Your task to perform on an android device: set default search engine in the chrome app Image 0: 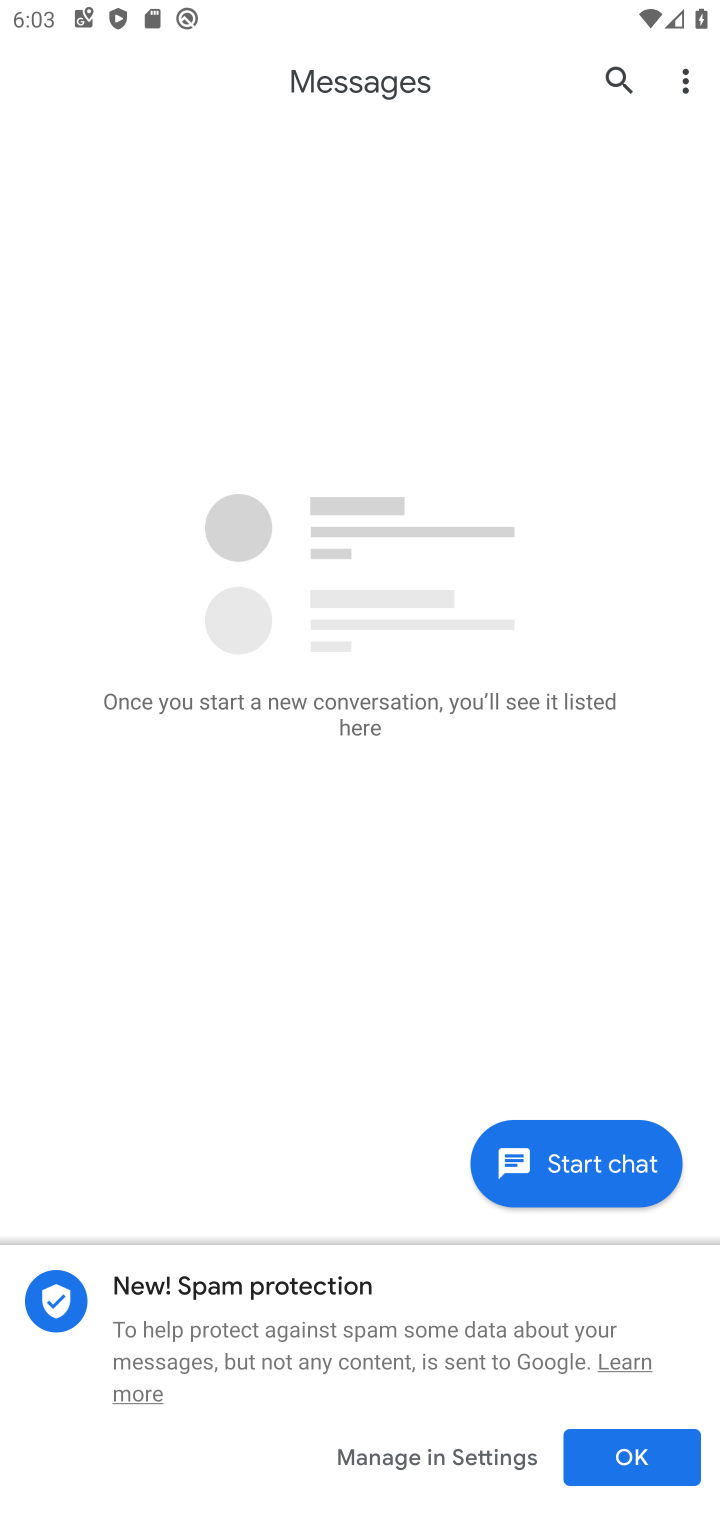
Step 0: press back button
Your task to perform on an android device: set default search engine in the chrome app Image 1: 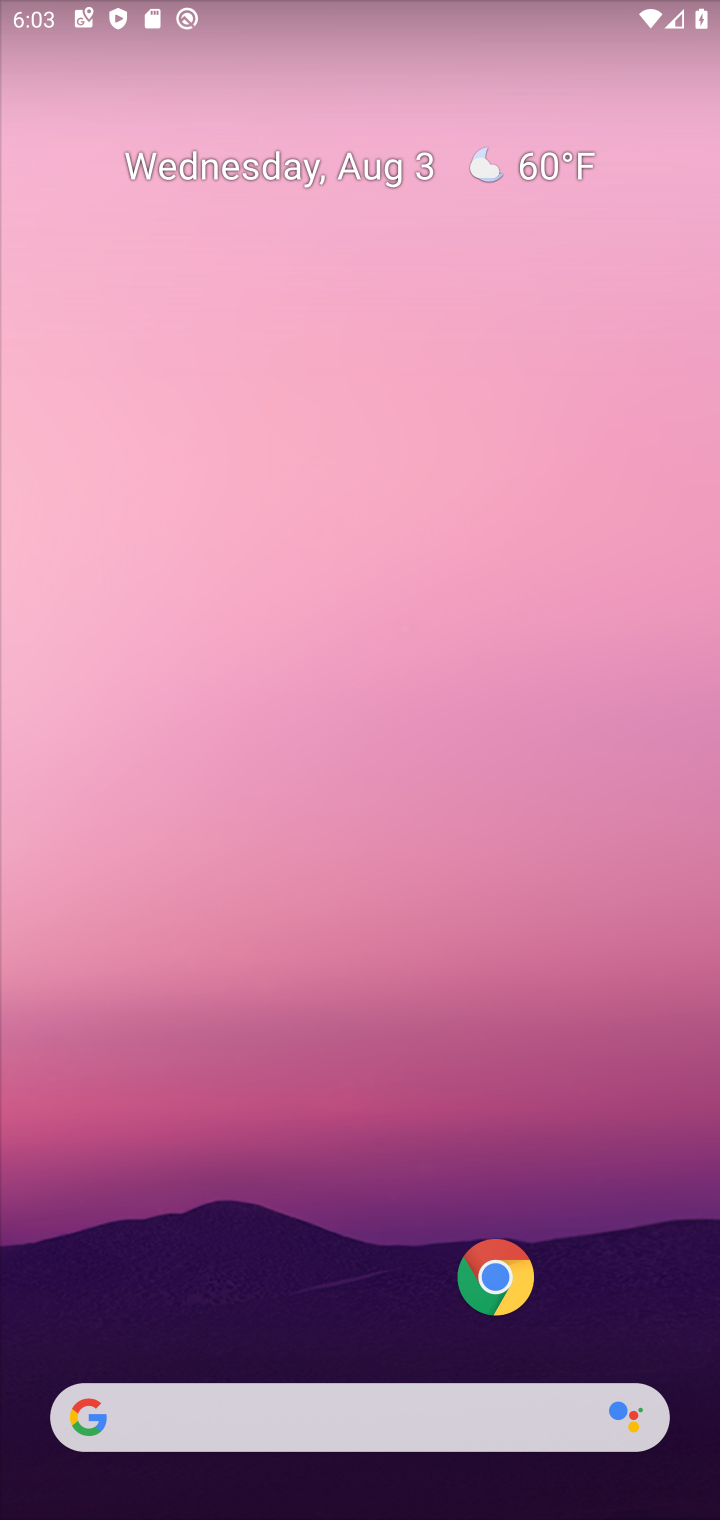
Step 1: click (505, 1279)
Your task to perform on an android device: set default search engine in the chrome app Image 2: 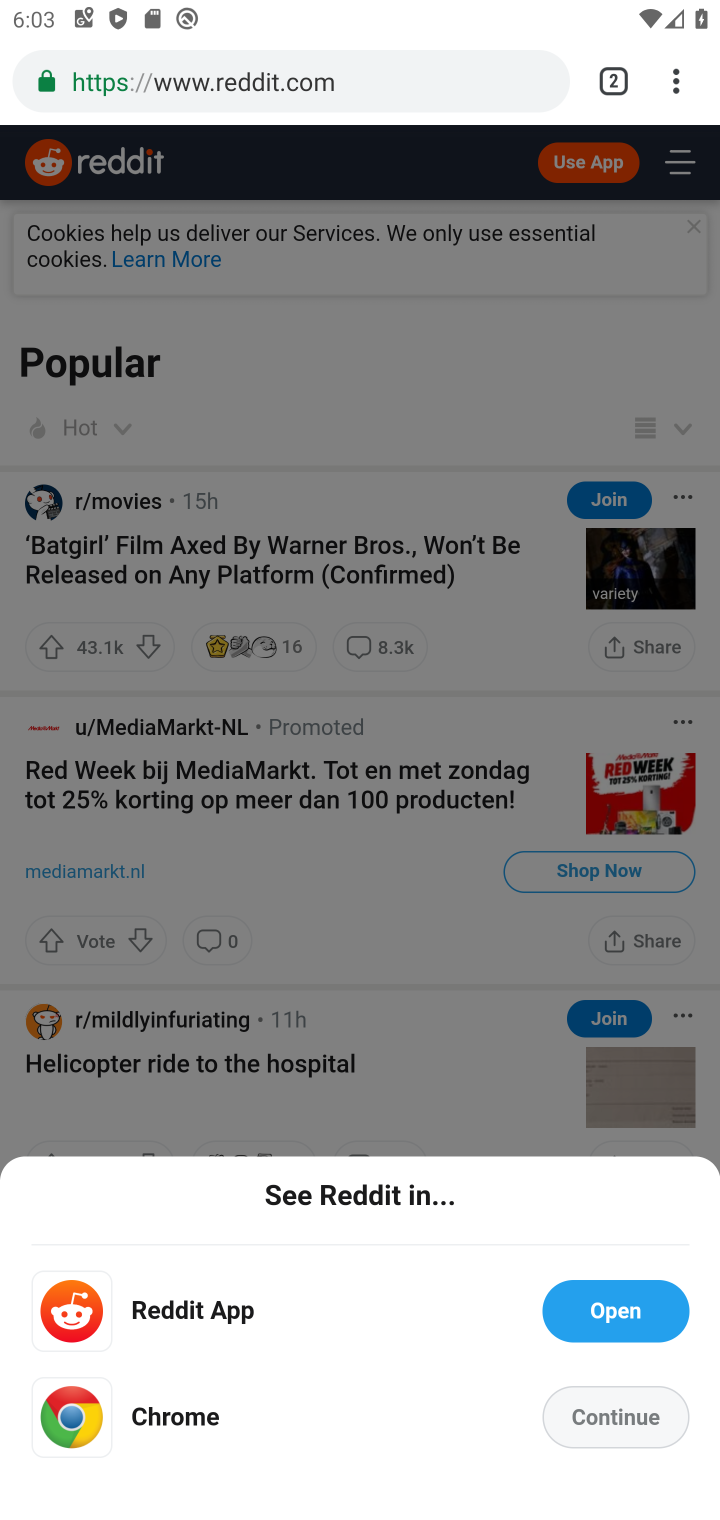
Step 2: drag from (681, 90) to (384, 1054)
Your task to perform on an android device: set default search engine in the chrome app Image 3: 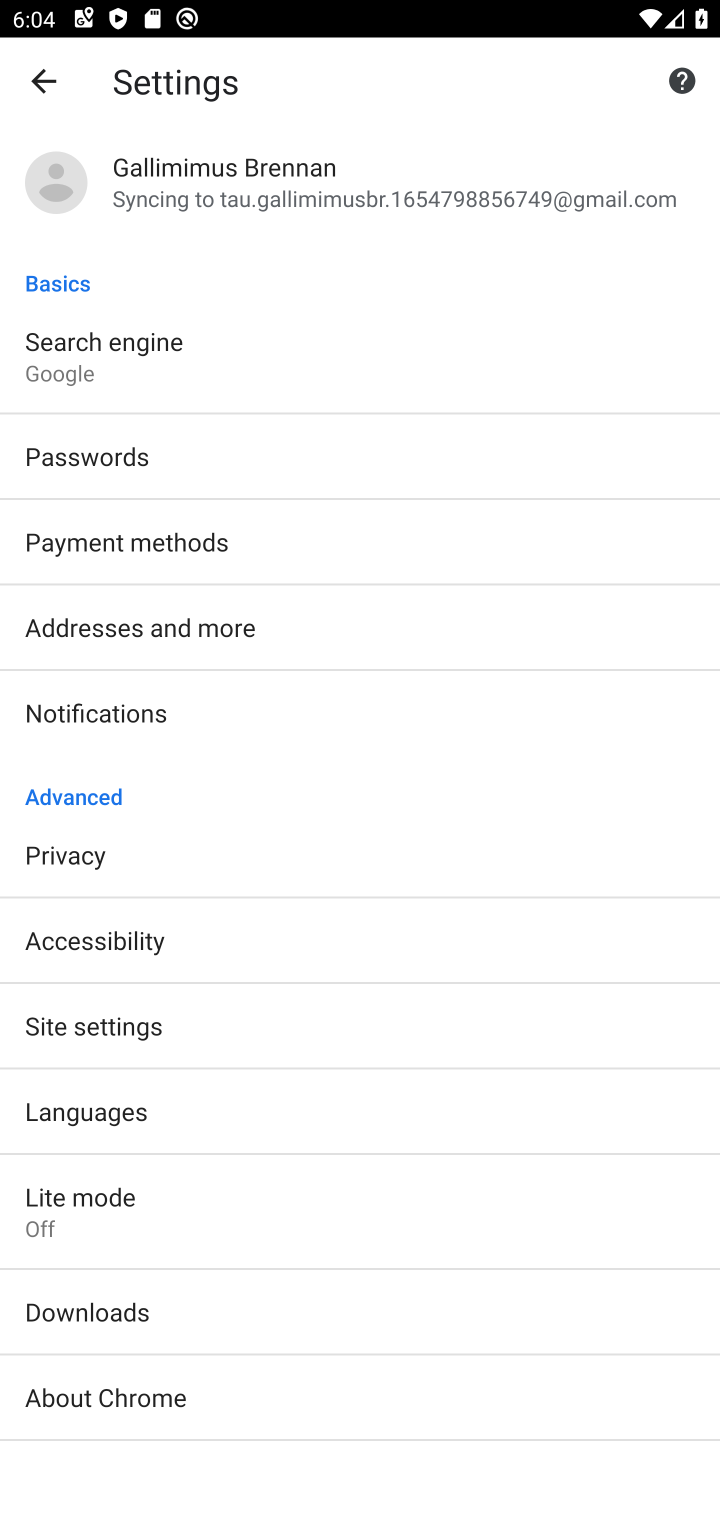
Step 3: click (68, 371)
Your task to perform on an android device: set default search engine in the chrome app Image 4: 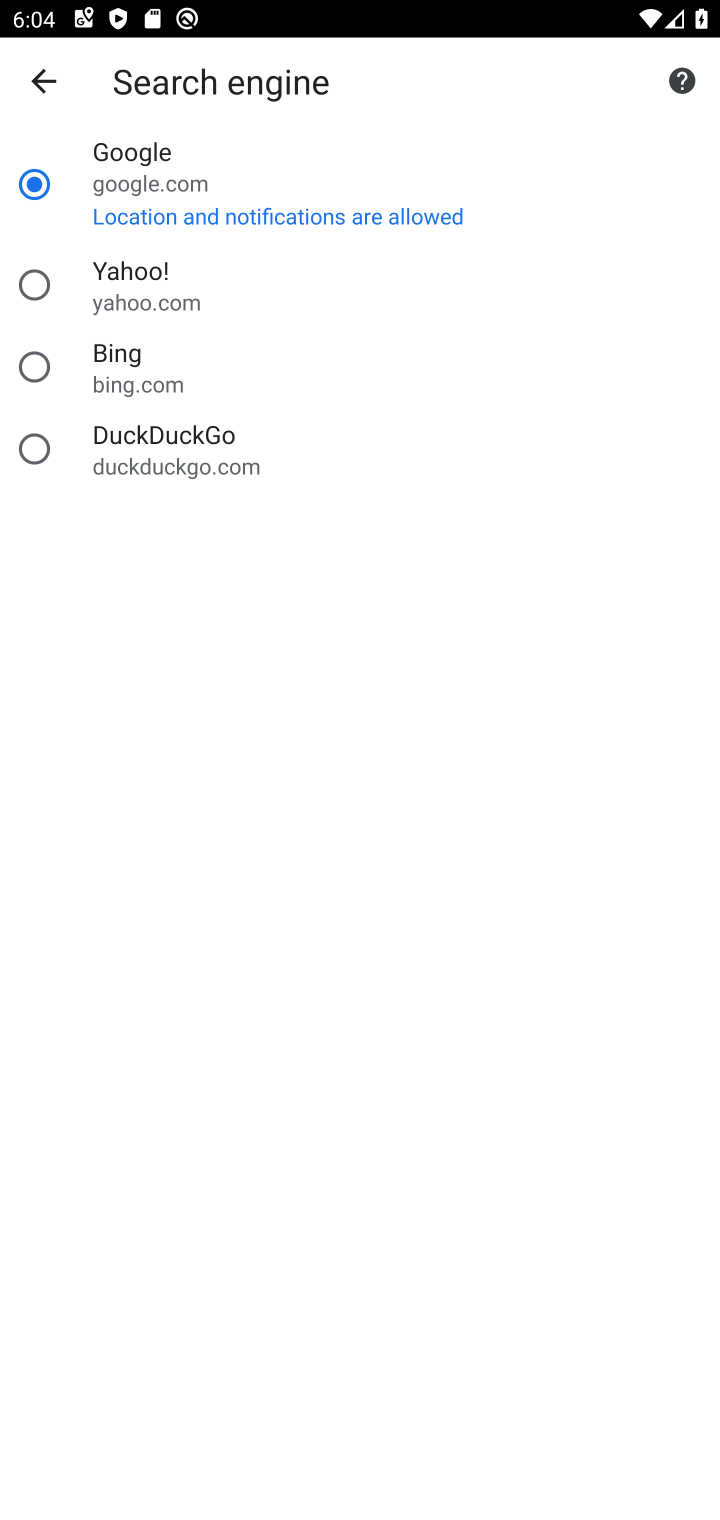
Step 4: click (129, 287)
Your task to perform on an android device: set default search engine in the chrome app Image 5: 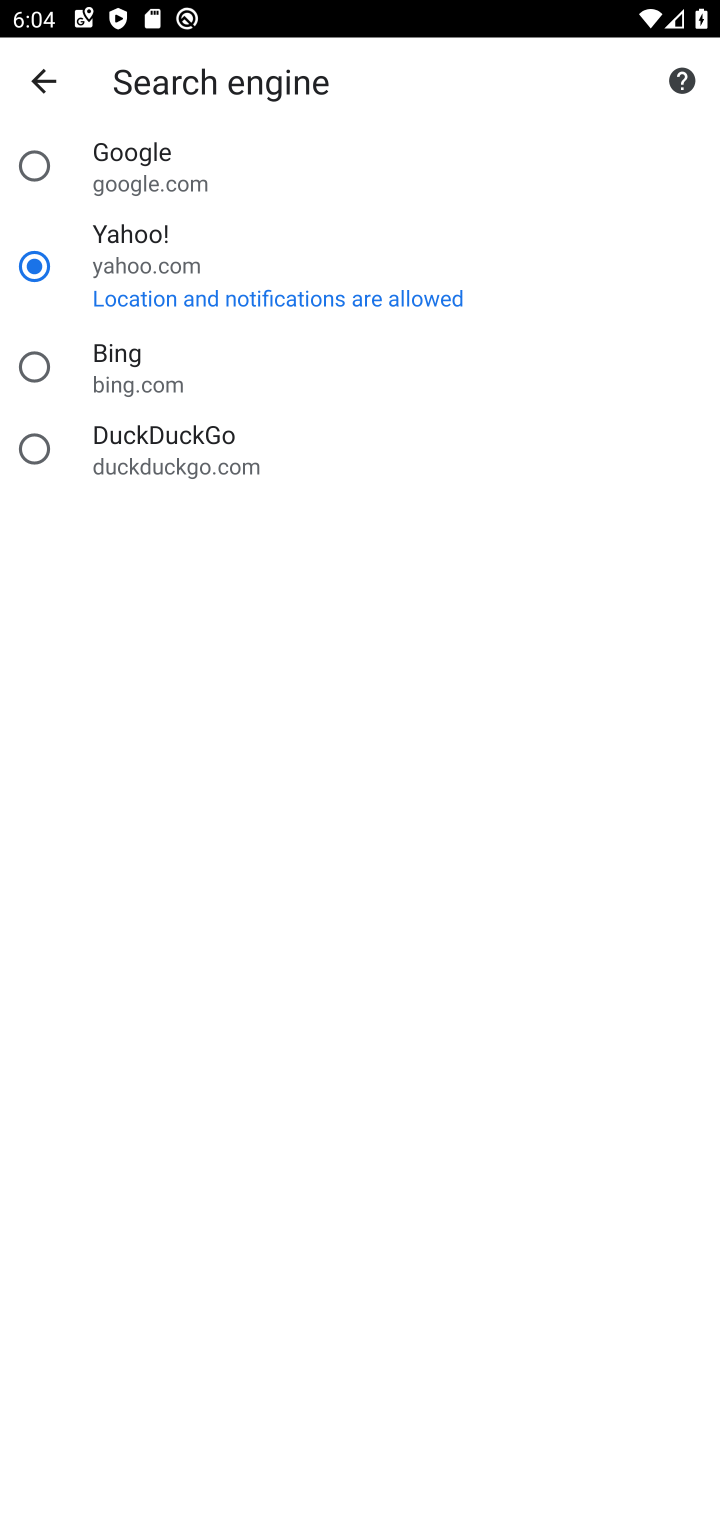
Step 5: task complete